Your task to perform on an android device: Do I have any events tomorrow? Image 0: 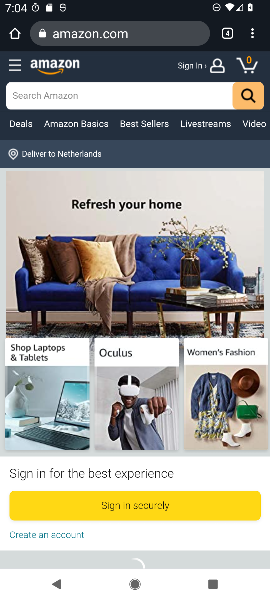
Step 0: press home button
Your task to perform on an android device: Do I have any events tomorrow? Image 1: 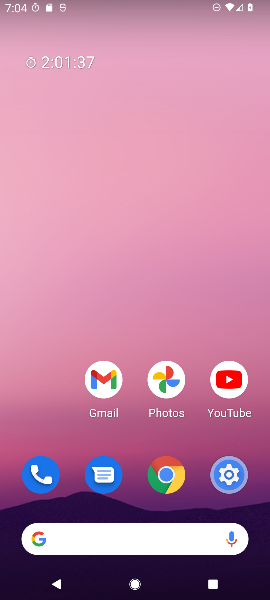
Step 1: drag from (57, 437) to (58, 140)
Your task to perform on an android device: Do I have any events tomorrow? Image 2: 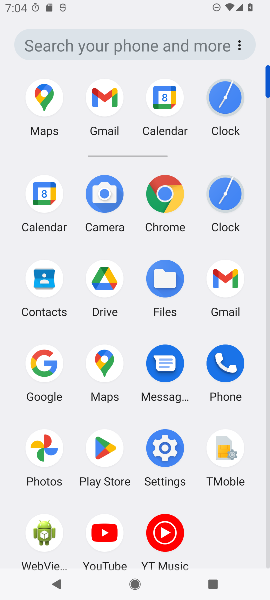
Step 2: click (43, 198)
Your task to perform on an android device: Do I have any events tomorrow? Image 3: 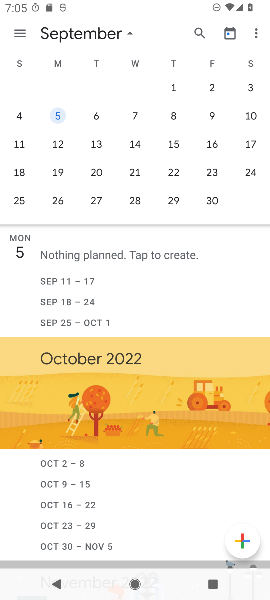
Step 3: drag from (150, 308) to (171, 158)
Your task to perform on an android device: Do I have any events tomorrow? Image 4: 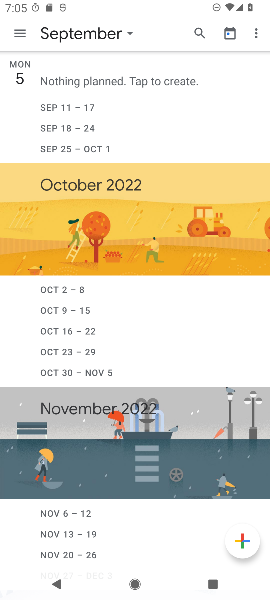
Step 4: drag from (153, 83) to (157, 246)
Your task to perform on an android device: Do I have any events tomorrow? Image 5: 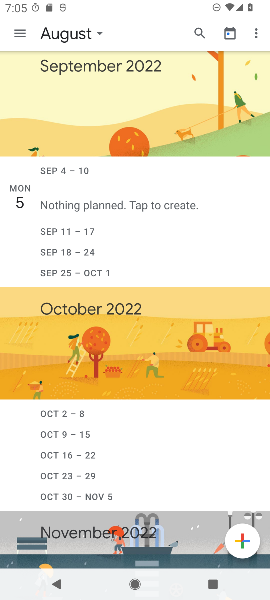
Step 5: drag from (143, 73) to (166, 240)
Your task to perform on an android device: Do I have any events tomorrow? Image 6: 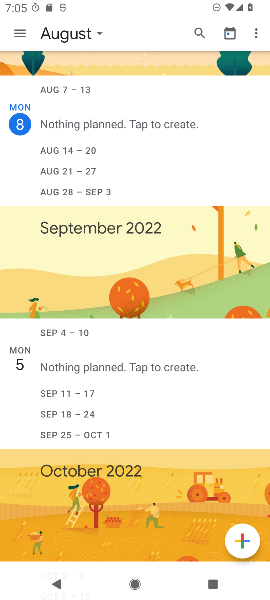
Step 6: click (101, 32)
Your task to perform on an android device: Do I have any events tomorrow? Image 7: 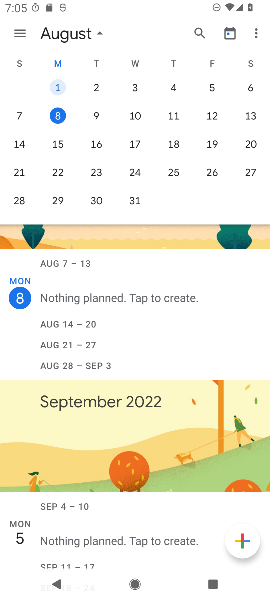
Step 7: click (96, 113)
Your task to perform on an android device: Do I have any events tomorrow? Image 8: 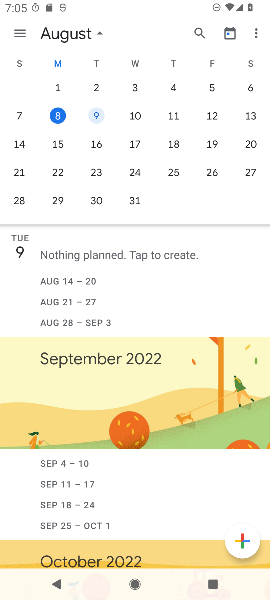
Step 8: task complete